Your task to perform on an android device: turn off location Image 0: 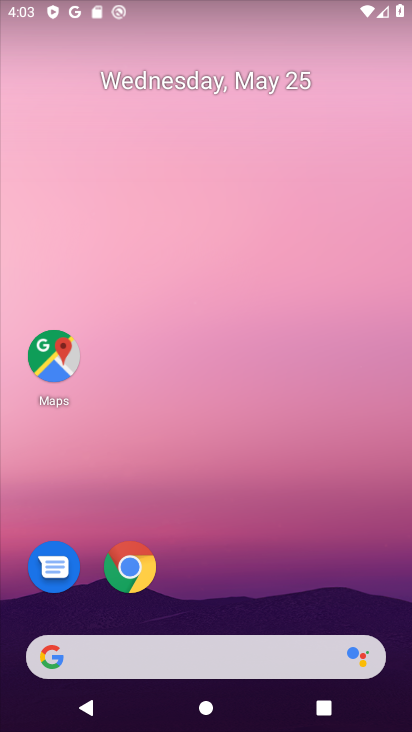
Step 0: drag from (337, 541) to (255, 68)
Your task to perform on an android device: turn off location Image 1: 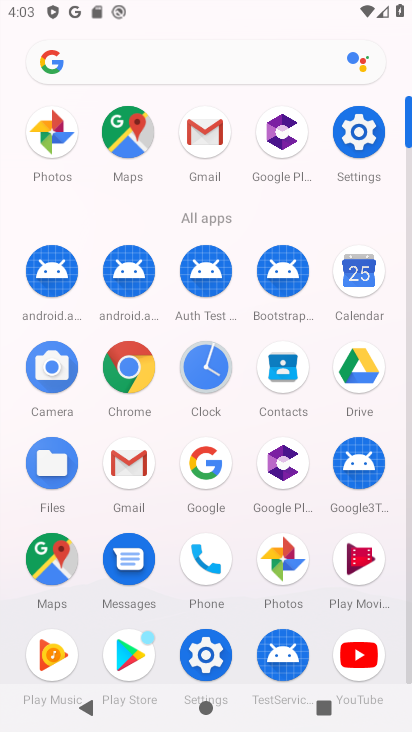
Step 1: drag from (2, 568) to (11, 283)
Your task to perform on an android device: turn off location Image 2: 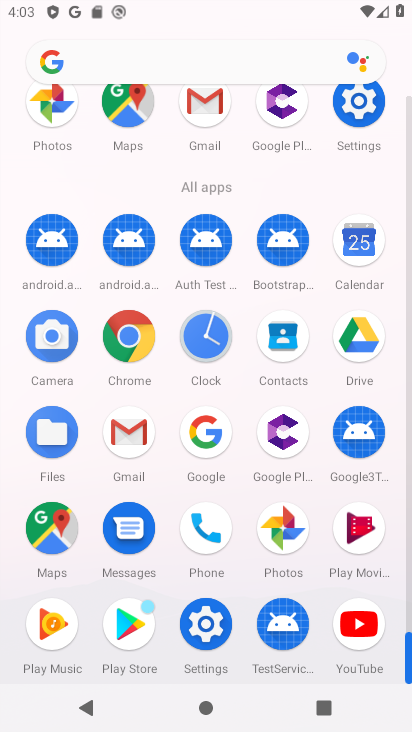
Step 2: click (204, 623)
Your task to perform on an android device: turn off location Image 3: 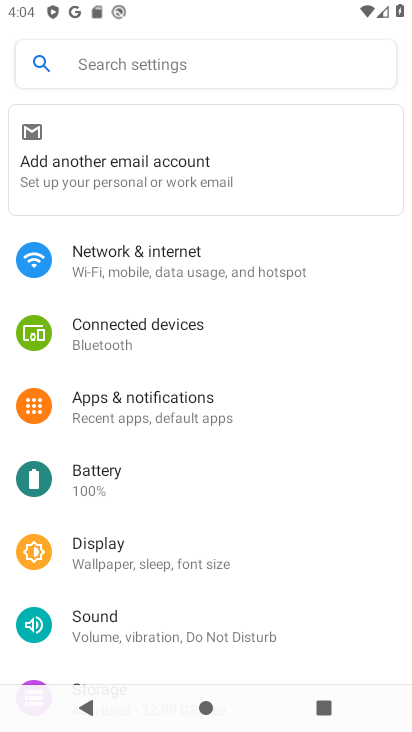
Step 3: drag from (293, 566) to (292, 192)
Your task to perform on an android device: turn off location Image 4: 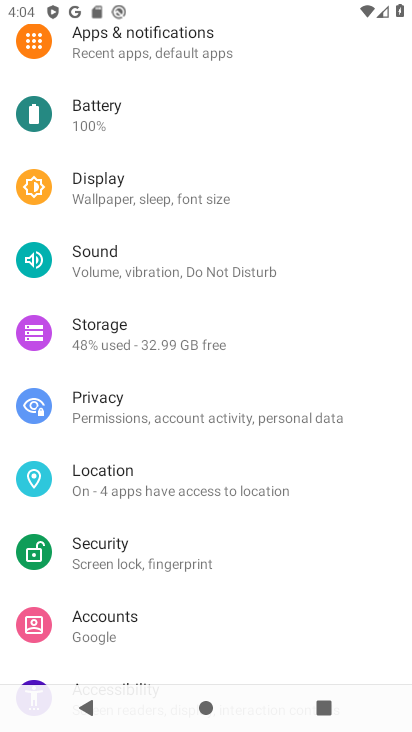
Step 4: click (154, 478)
Your task to perform on an android device: turn off location Image 5: 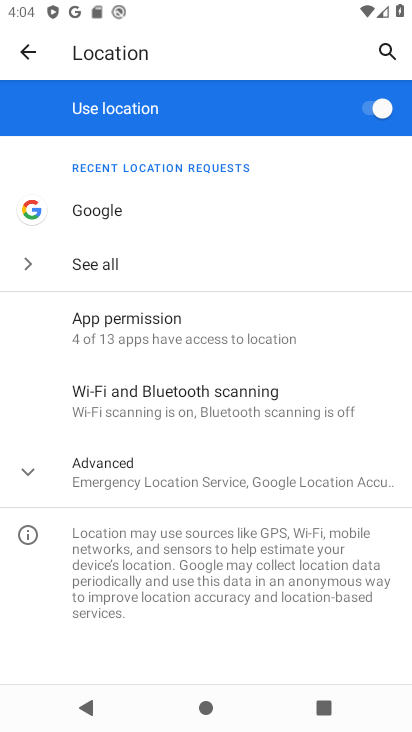
Step 5: click (40, 478)
Your task to perform on an android device: turn off location Image 6: 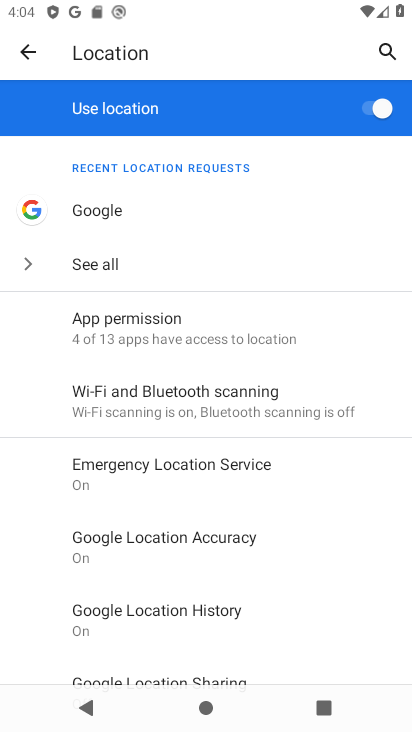
Step 6: click (369, 105)
Your task to perform on an android device: turn off location Image 7: 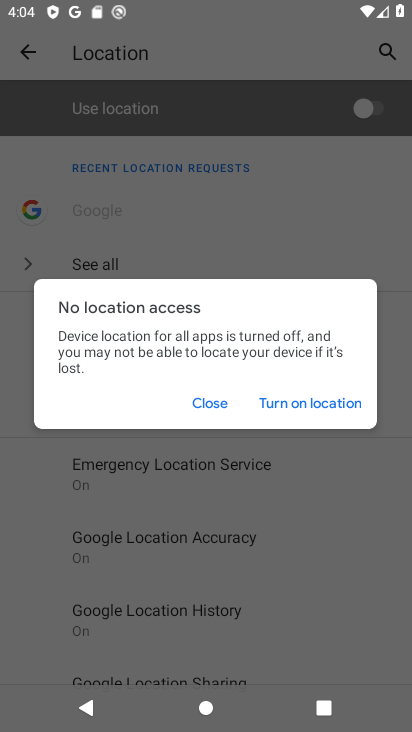
Step 7: click (216, 403)
Your task to perform on an android device: turn off location Image 8: 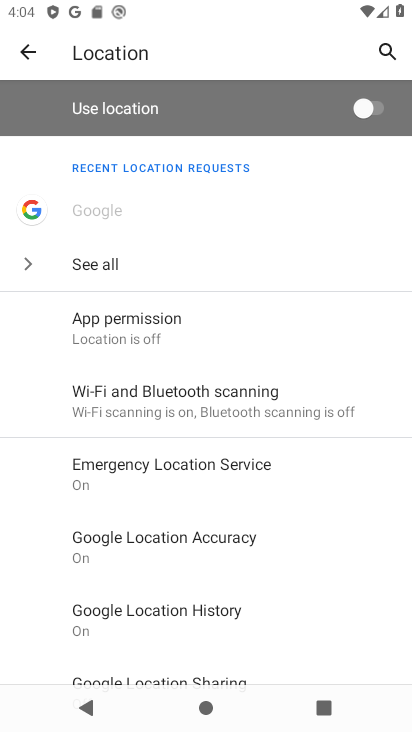
Step 8: task complete